Your task to perform on an android device: change the clock style Image 0: 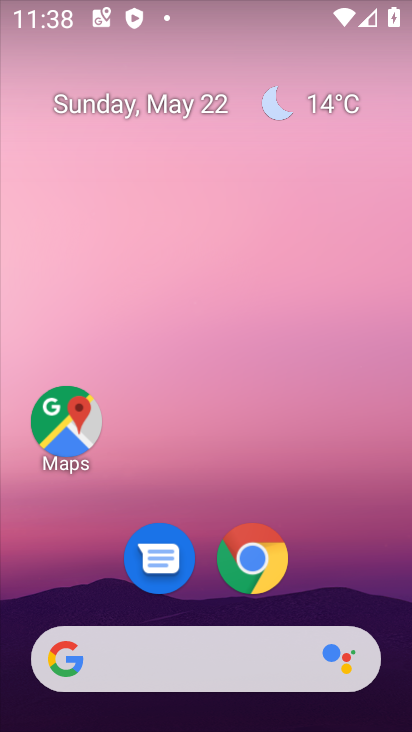
Step 0: drag from (375, 603) to (401, 13)
Your task to perform on an android device: change the clock style Image 1: 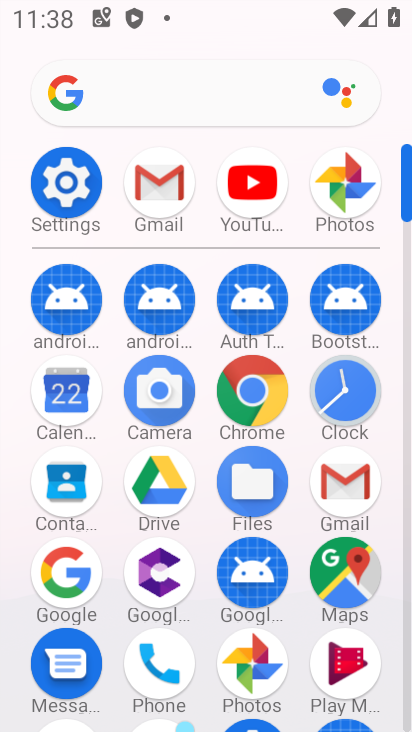
Step 1: click (344, 395)
Your task to perform on an android device: change the clock style Image 2: 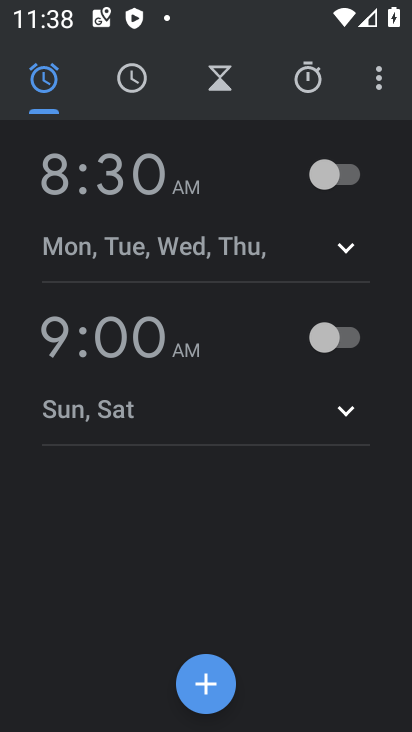
Step 2: click (380, 84)
Your task to perform on an android device: change the clock style Image 3: 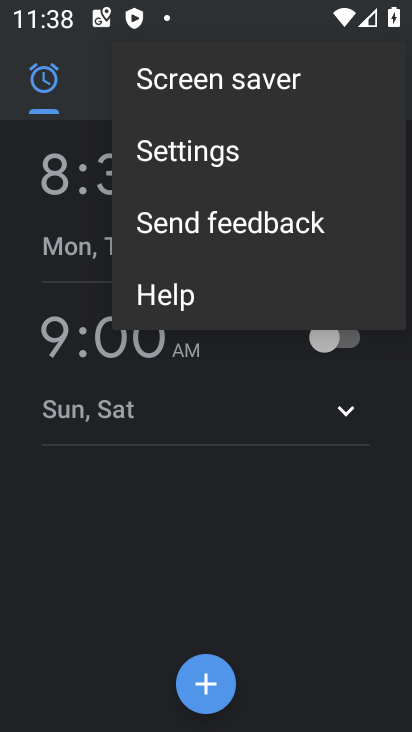
Step 3: click (198, 159)
Your task to perform on an android device: change the clock style Image 4: 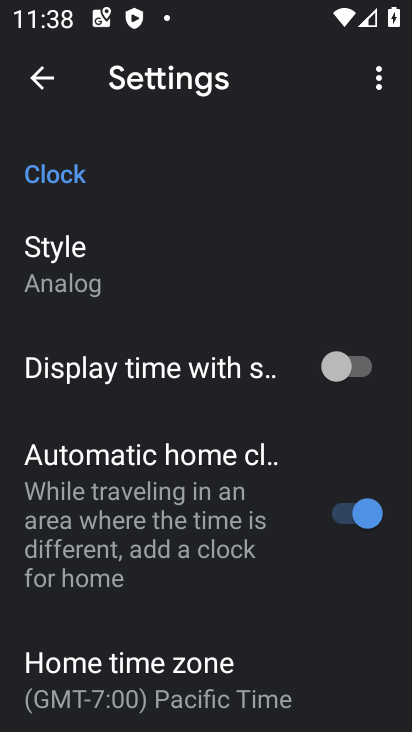
Step 4: click (78, 282)
Your task to perform on an android device: change the clock style Image 5: 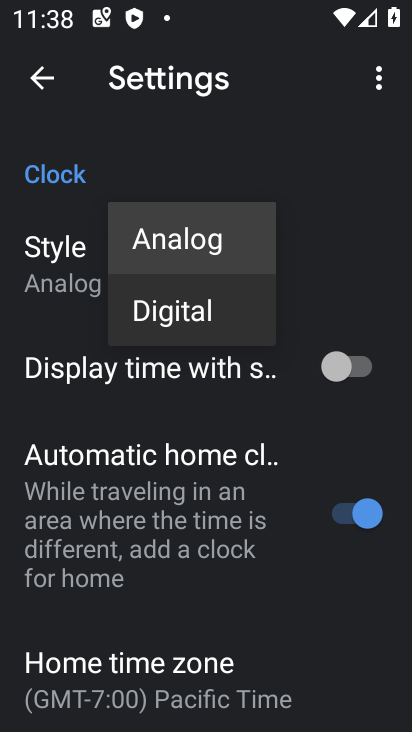
Step 5: click (191, 322)
Your task to perform on an android device: change the clock style Image 6: 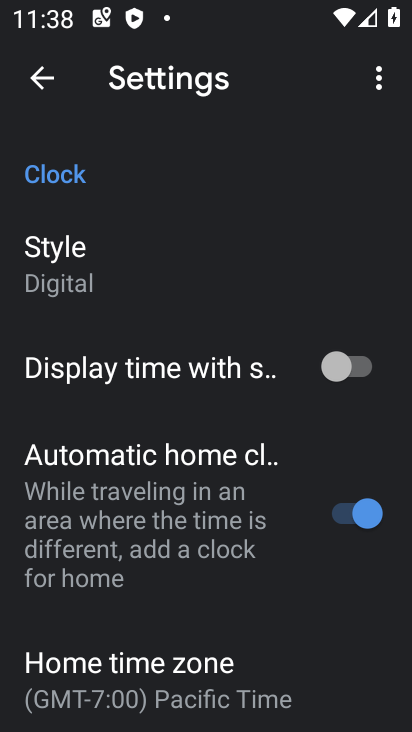
Step 6: task complete